Your task to perform on an android device: Open the Play Movies app and select the watchlist tab. Image 0: 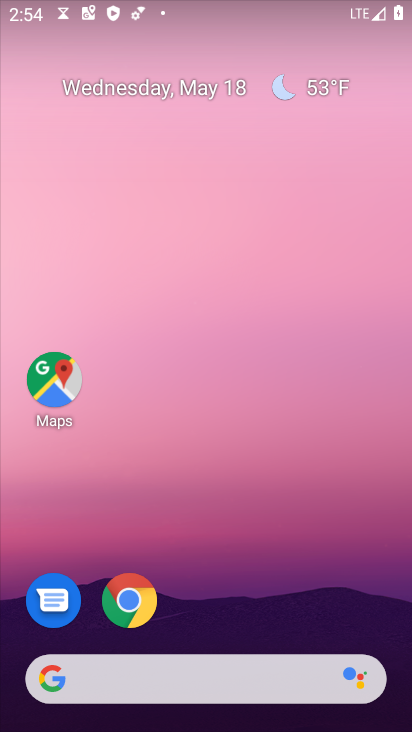
Step 0: drag from (132, 667) to (304, 137)
Your task to perform on an android device: Open the Play Movies app and select the watchlist tab. Image 1: 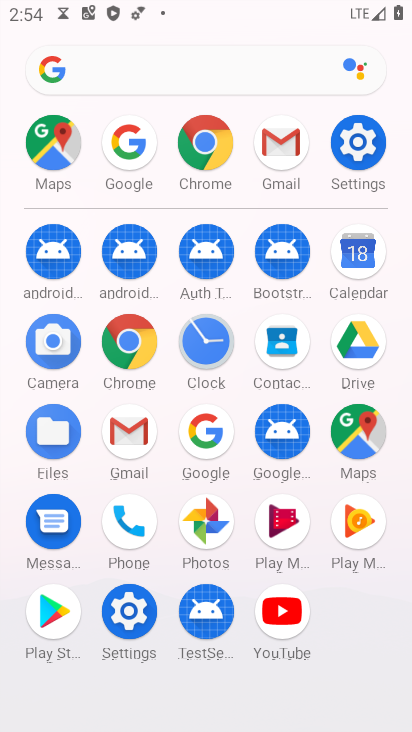
Step 1: click (292, 532)
Your task to perform on an android device: Open the Play Movies app and select the watchlist tab. Image 2: 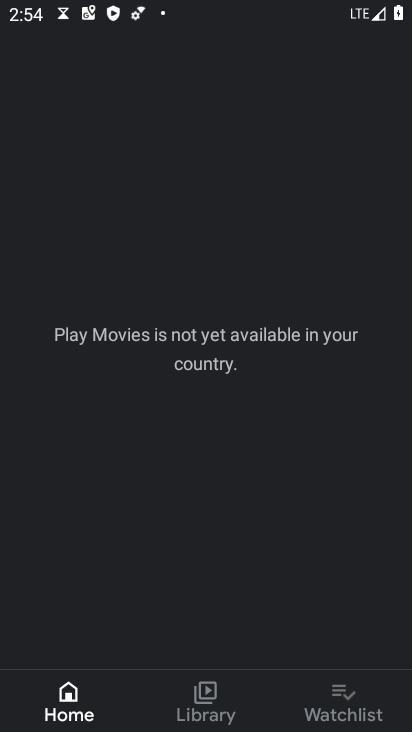
Step 2: click (332, 696)
Your task to perform on an android device: Open the Play Movies app and select the watchlist tab. Image 3: 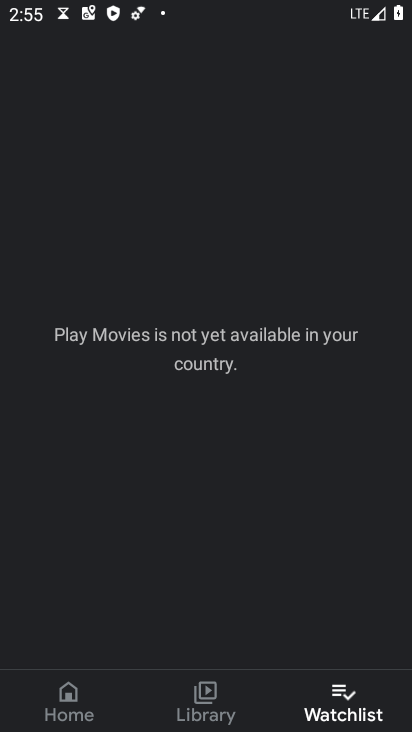
Step 3: task complete